Your task to perform on an android device: Open location settings Image 0: 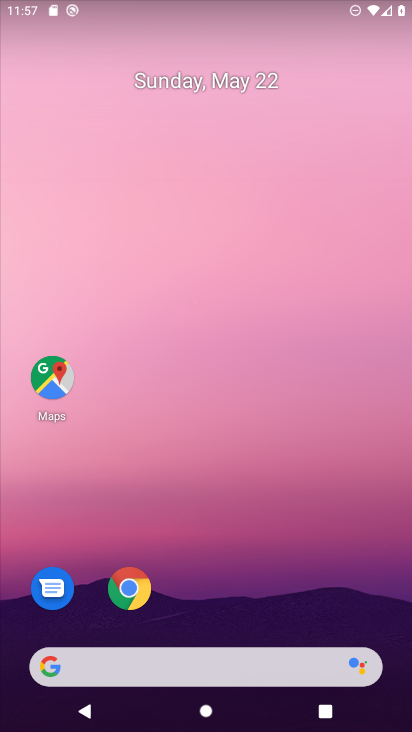
Step 0: drag from (227, 642) to (224, 85)
Your task to perform on an android device: Open location settings Image 1: 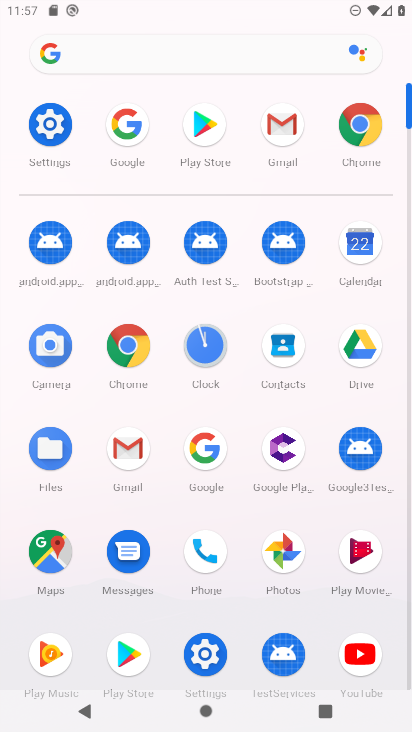
Step 1: click (48, 125)
Your task to perform on an android device: Open location settings Image 2: 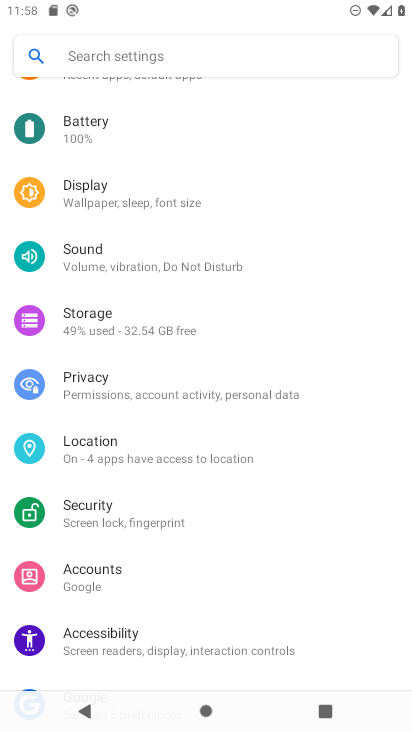
Step 2: click (102, 447)
Your task to perform on an android device: Open location settings Image 3: 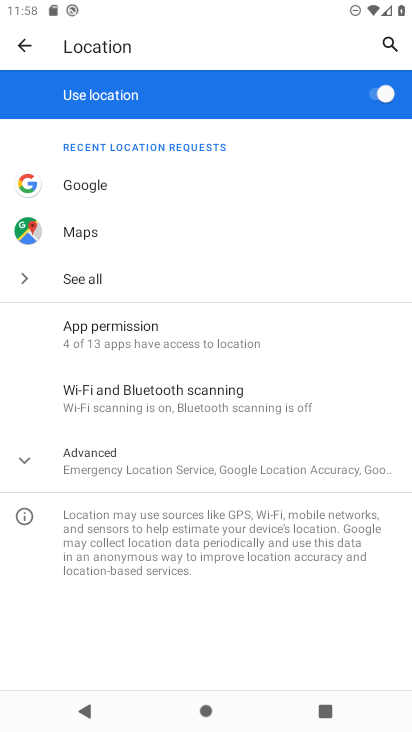
Step 3: click (103, 463)
Your task to perform on an android device: Open location settings Image 4: 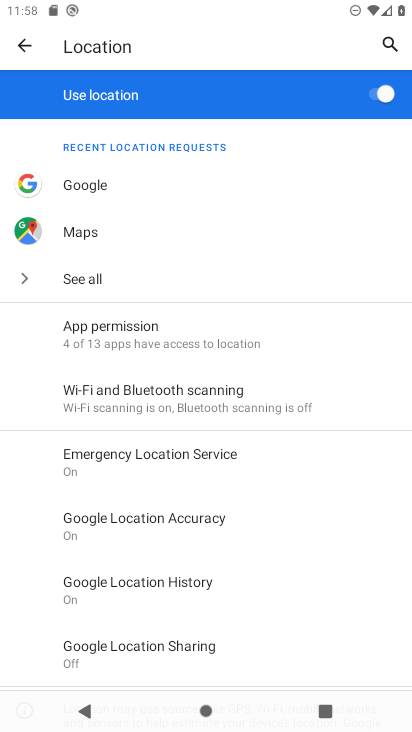
Step 4: task complete